Your task to perform on an android device: open app "Google Find My Device" (install if not already installed) Image 0: 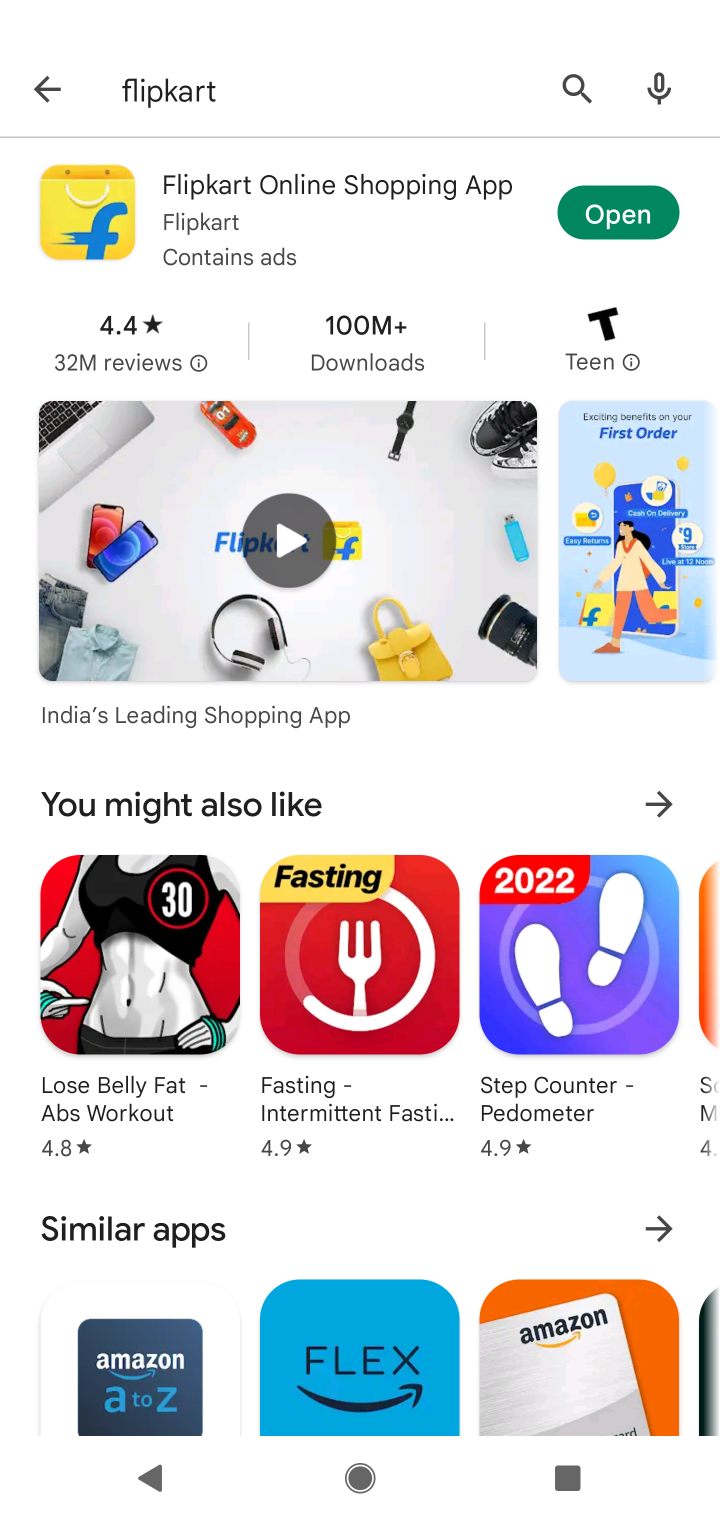
Step 0: press home button
Your task to perform on an android device: open app "Google Find My Device" (install if not already installed) Image 1: 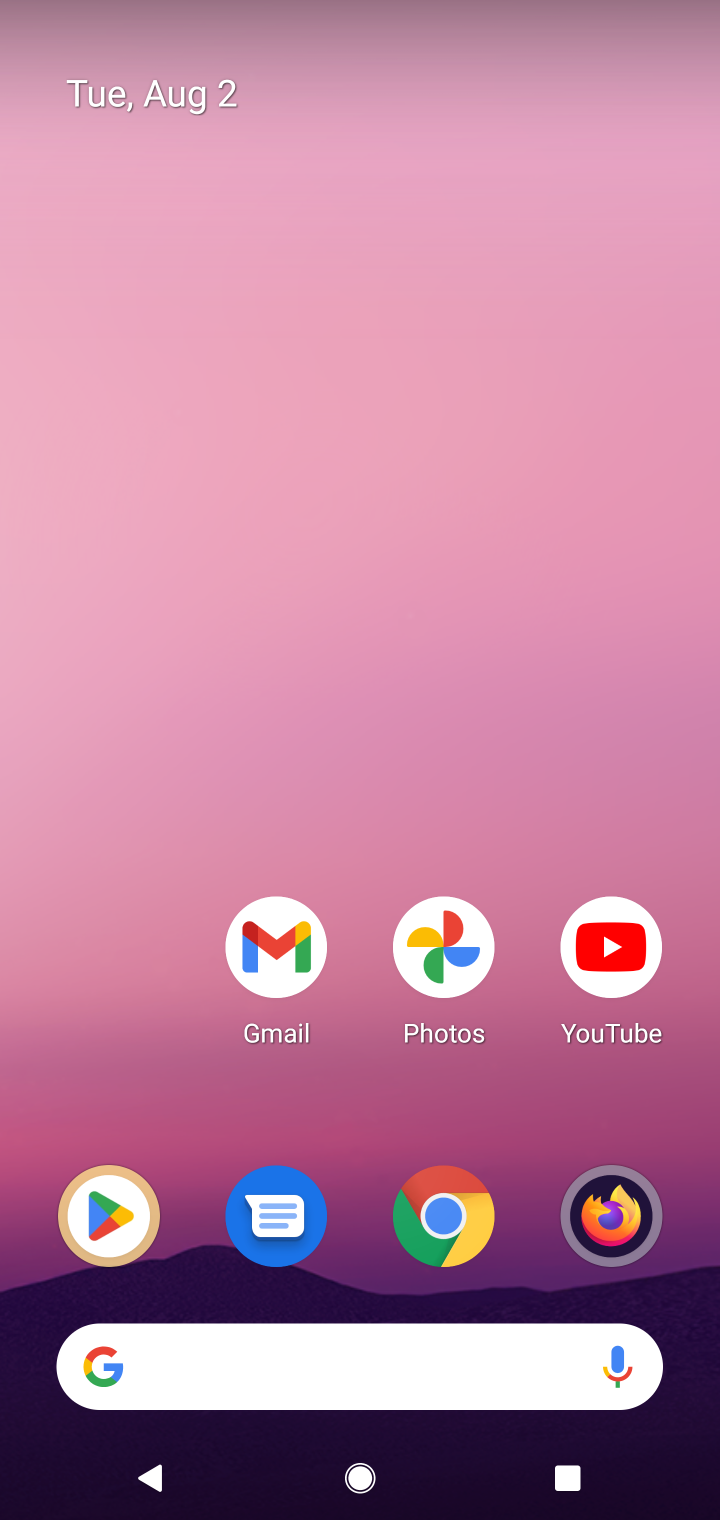
Step 1: click (92, 1242)
Your task to perform on an android device: open app "Google Find My Device" (install if not already installed) Image 2: 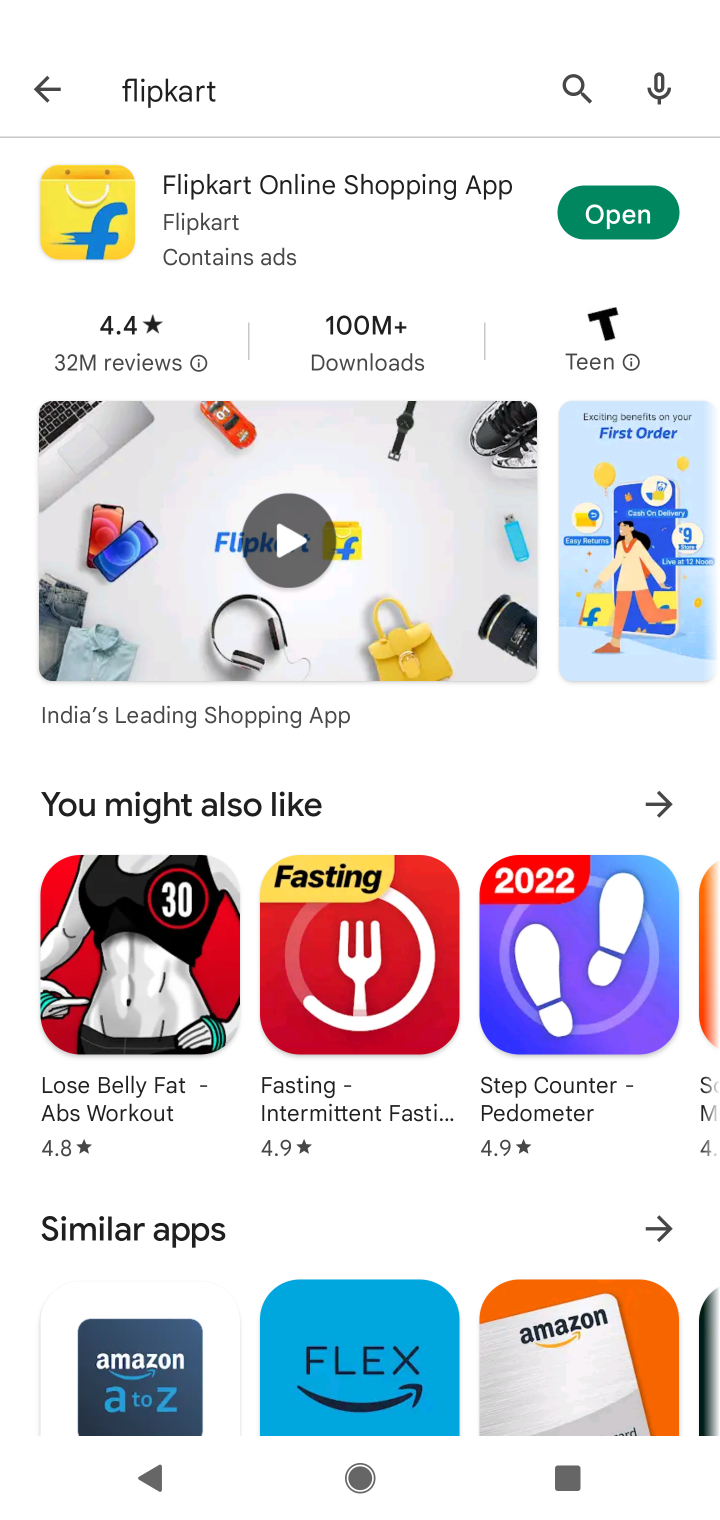
Step 2: click (582, 73)
Your task to perform on an android device: open app "Google Find My Device" (install if not already installed) Image 3: 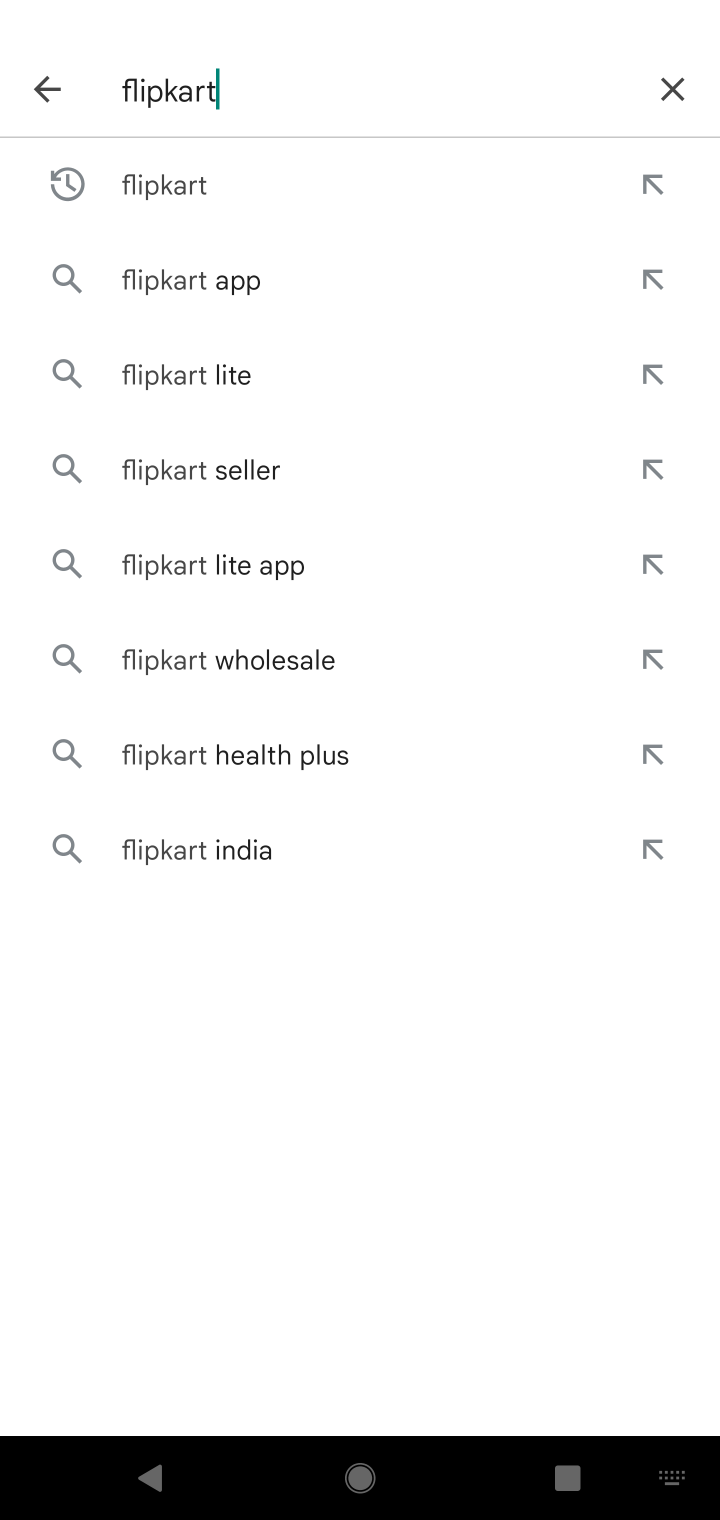
Step 3: click (647, 82)
Your task to perform on an android device: open app "Google Find My Device" (install if not already installed) Image 4: 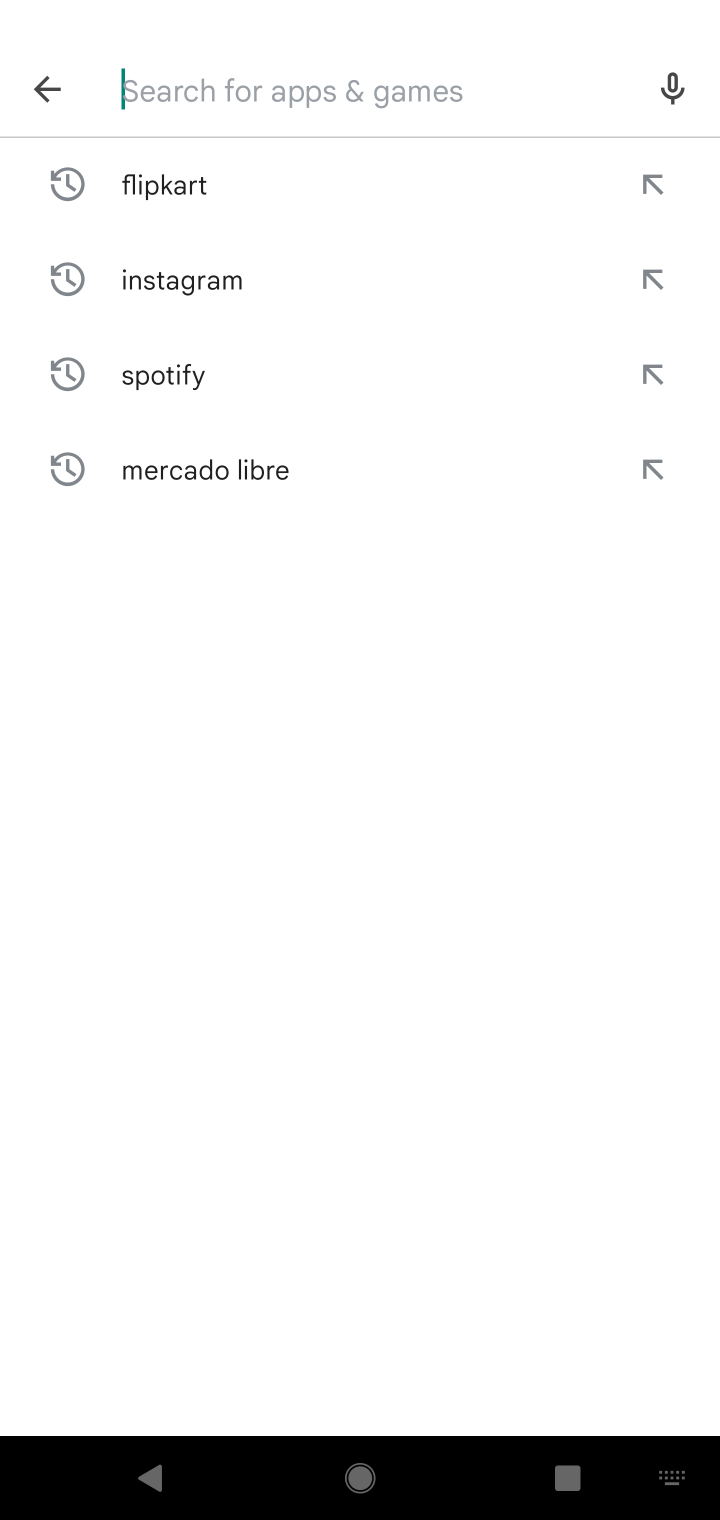
Step 4: type "google find my deviec"
Your task to perform on an android device: open app "Google Find My Device" (install if not already installed) Image 5: 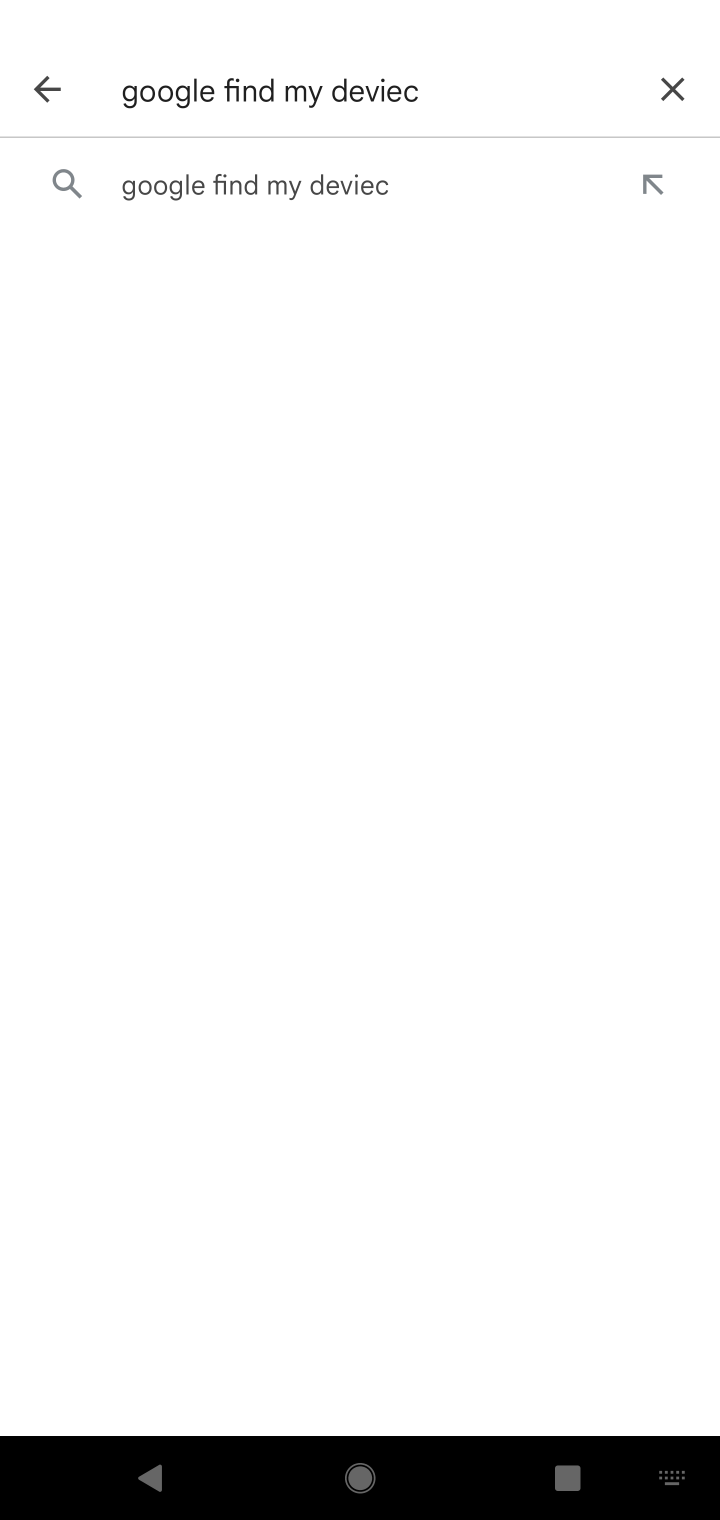
Step 5: click (367, 154)
Your task to perform on an android device: open app "Google Find My Device" (install if not already installed) Image 6: 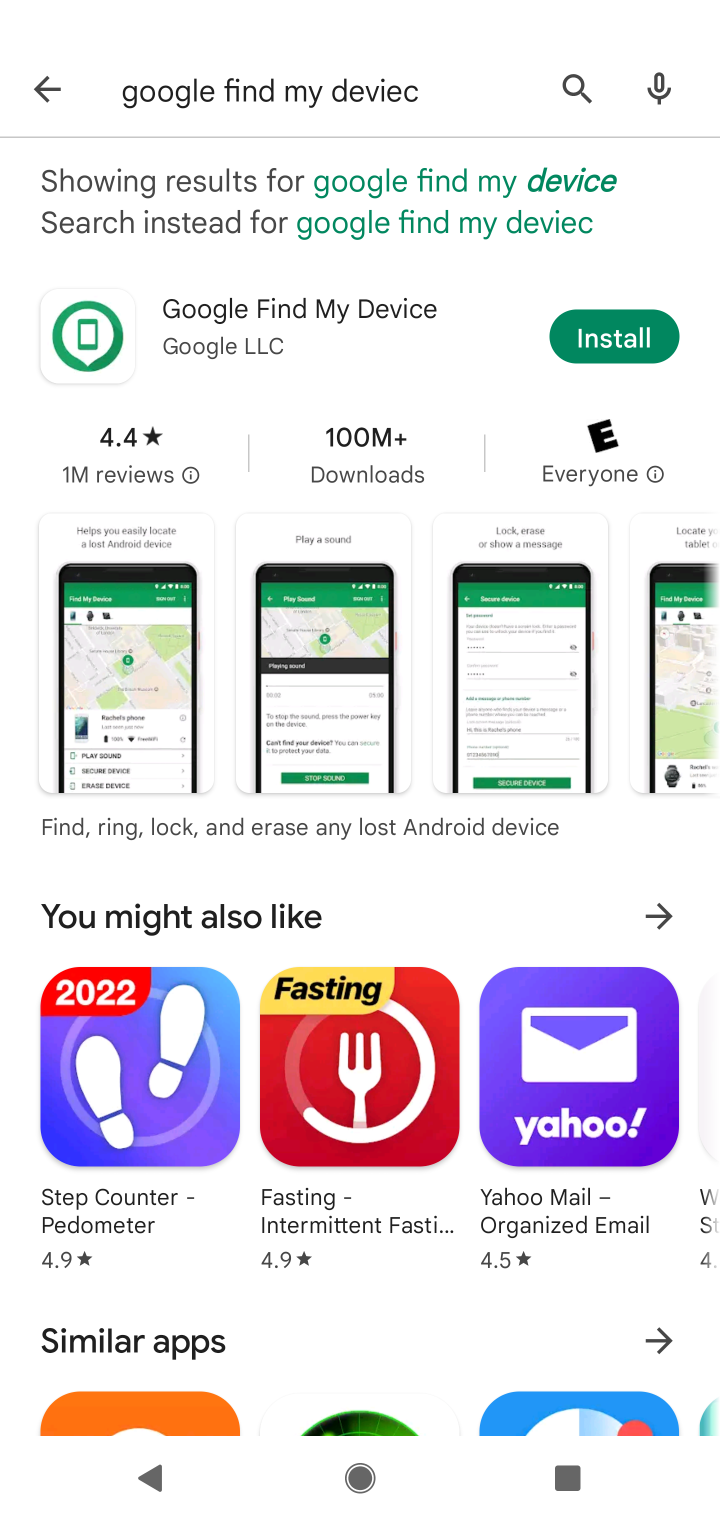
Step 6: click (639, 338)
Your task to perform on an android device: open app "Google Find My Device" (install if not already installed) Image 7: 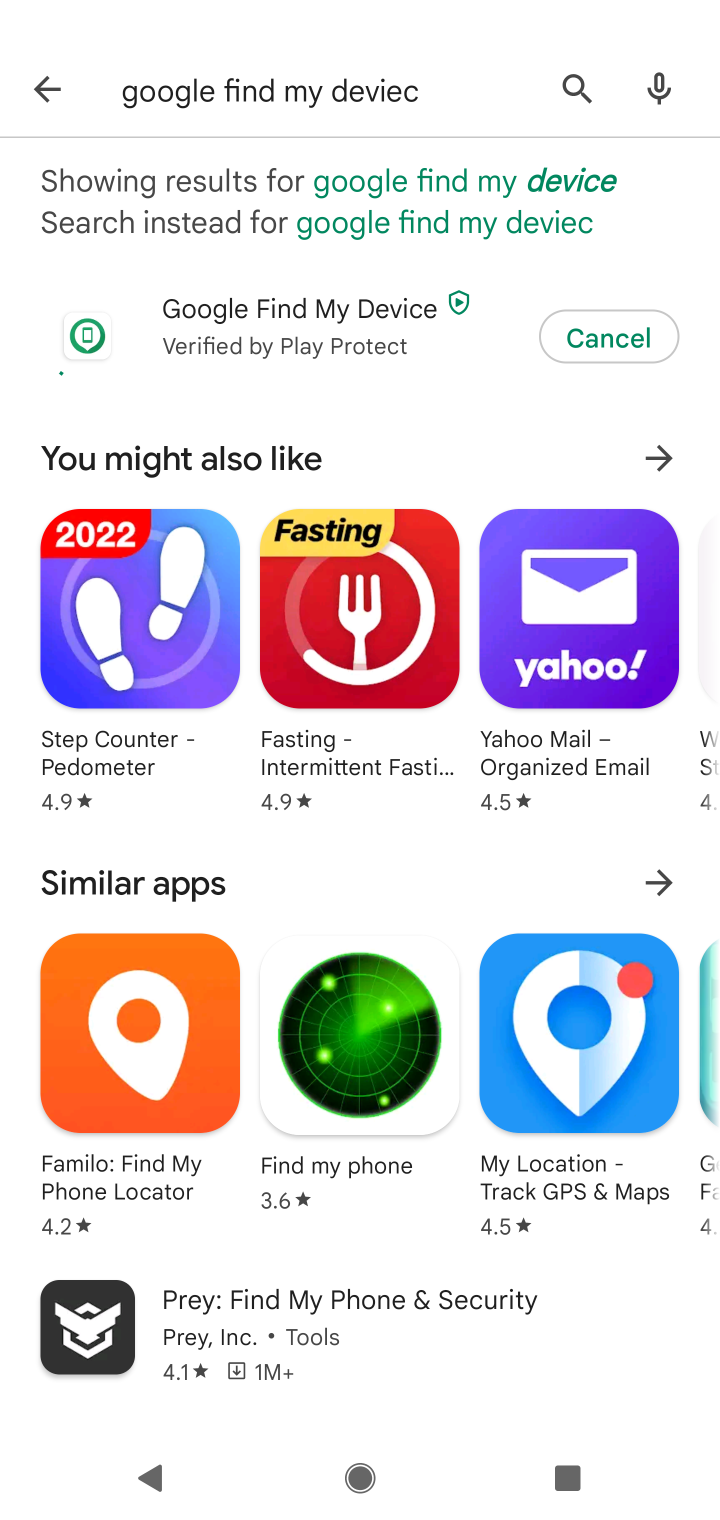
Step 7: task complete